Your task to perform on an android device: Open the web browser Image 0: 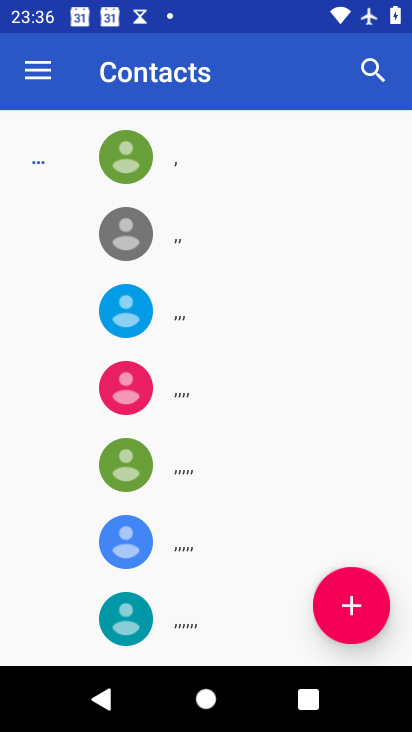
Step 0: press home button
Your task to perform on an android device: Open the web browser Image 1: 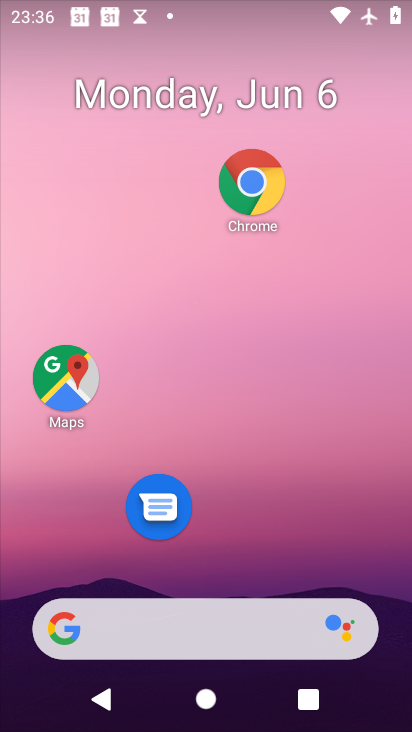
Step 1: click (244, 195)
Your task to perform on an android device: Open the web browser Image 2: 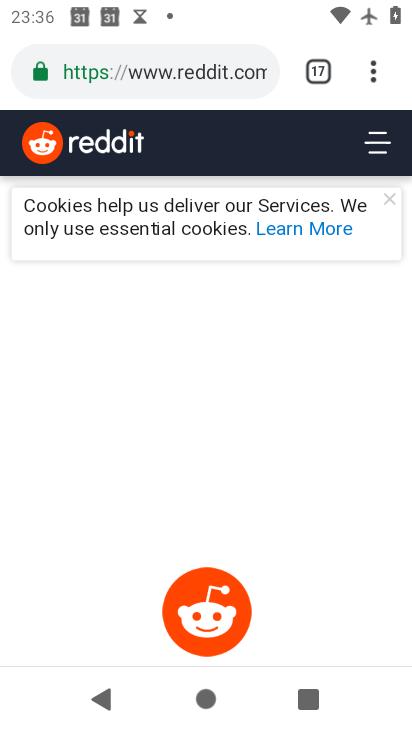
Step 2: task complete